Your task to perform on an android device: Open Youtube and go to the subscriptions tab Image 0: 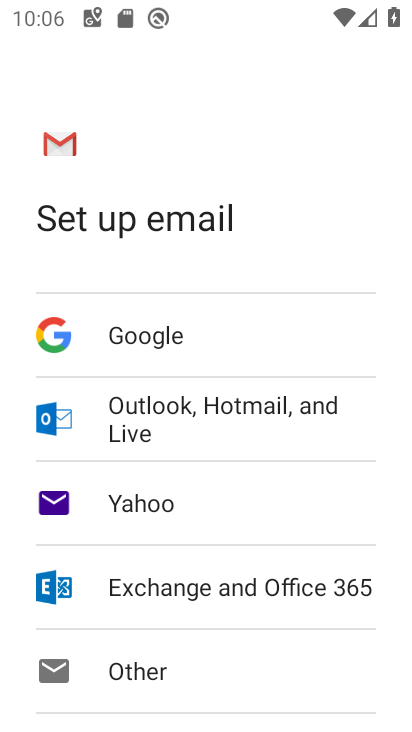
Step 0: drag from (393, 645) to (357, 175)
Your task to perform on an android device: Open Youtube and go to the subscriptions tab Image 1: 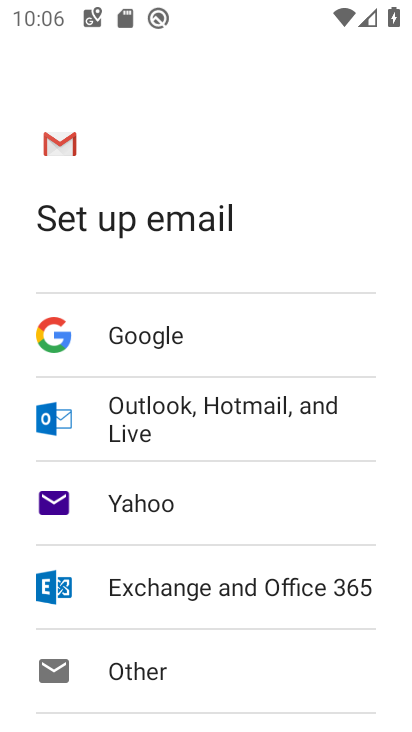
Step 1: press home button
Your task to perform on an android device: Open Youtube and go to the subscriptions tab Image 2: 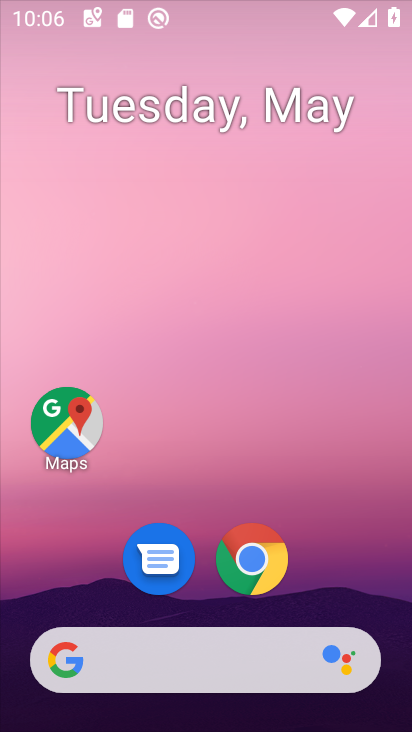
Step 2: drag from (387, 677) to (311, 26)
Your task to perform on an android device: Open Youtube and go to the subscriptions tab Image 3: 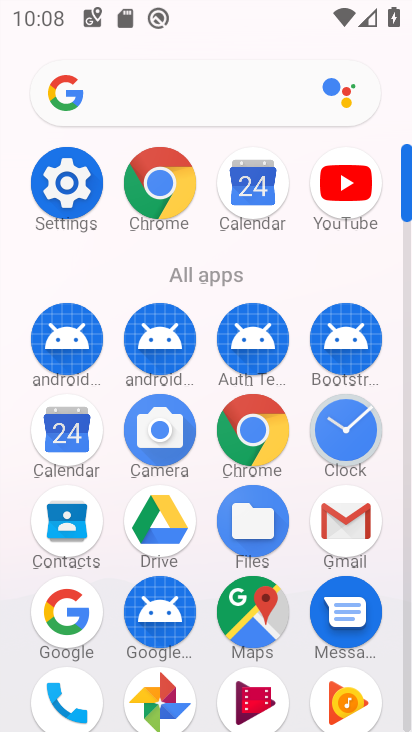
Step 3: drag from (305, 642) to (252, 128)
Your task to perform on an android device: Open Youtube and go to the subscriptions tab Image 4: 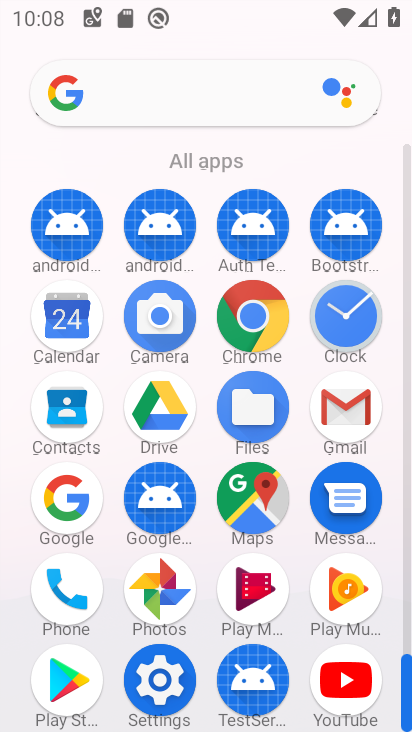
Step 4: click (343, 682)
Your task to perform on an android device: Open Youtube and go to the subscriptions tab Image 5: 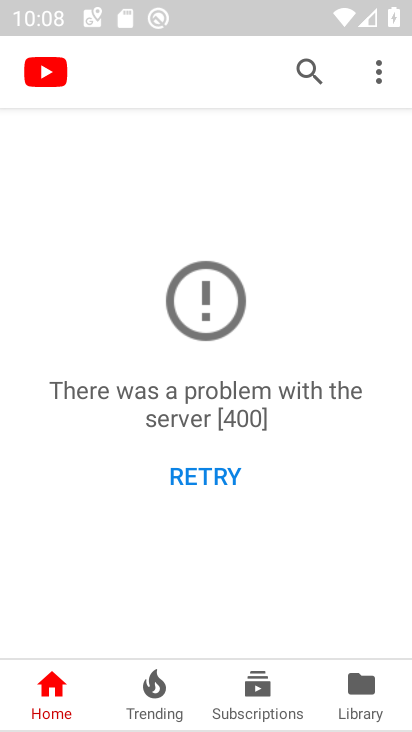
Step 5: task complete